Your task to perform on an android device: turn off smart reply in the gmail app Image 0: 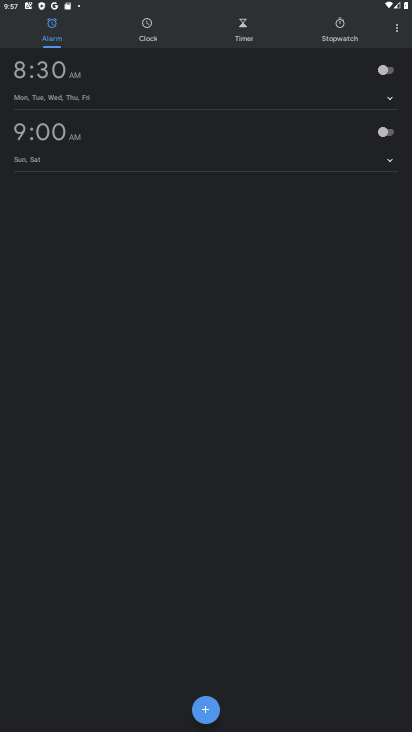
Step 0: press home button
Your task to perform on an android device: turn off smart reply in the gmail app Image 1: 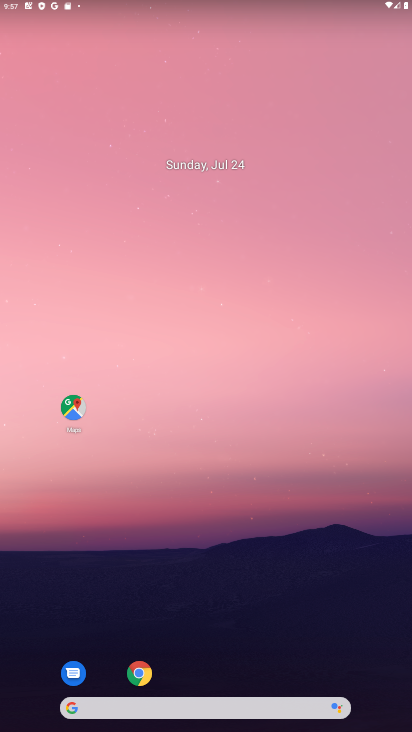
Step 1: drag from (42, 658) to (191, 150)
Your task to perform on an android device: turn off smart reply in the gmail app Image 2: 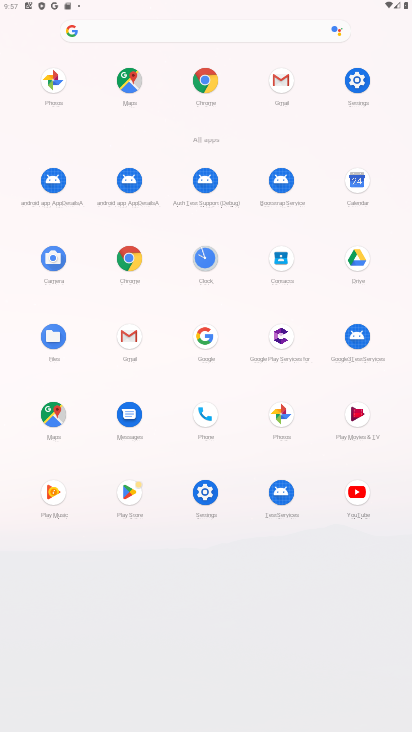
Step 2: click (120, 343)
Your task to perform on an android device: turn off smart reply in the gmail app Image 3: 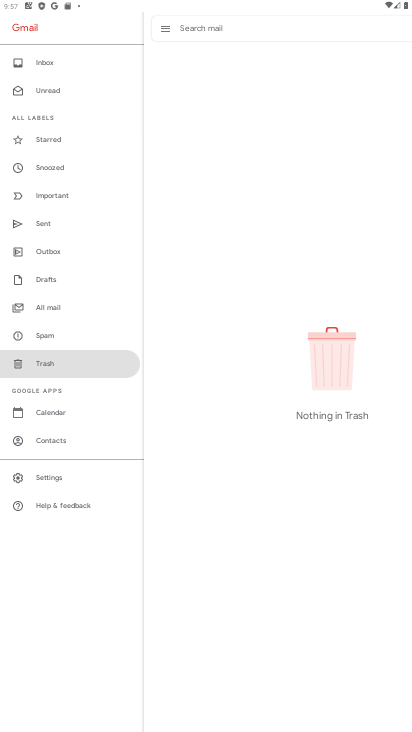
Step 3: click (62, 482)
Your task to perform on an android device: turn off smart reply in the gmail app Image 4: 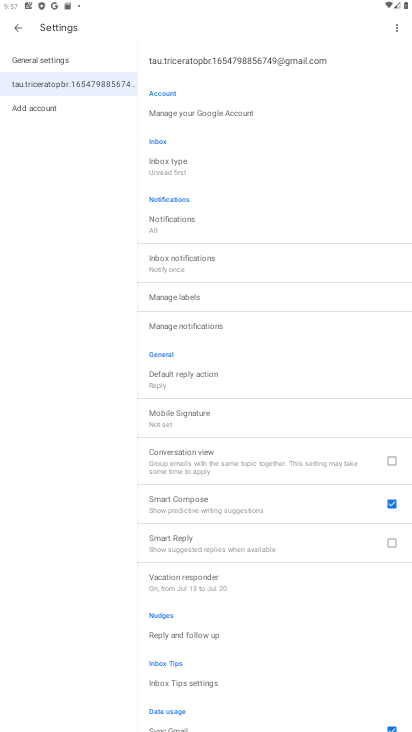
Step 4: task complete